Your task to perform on an android device: Show me popular games on the Play Store Image 0: 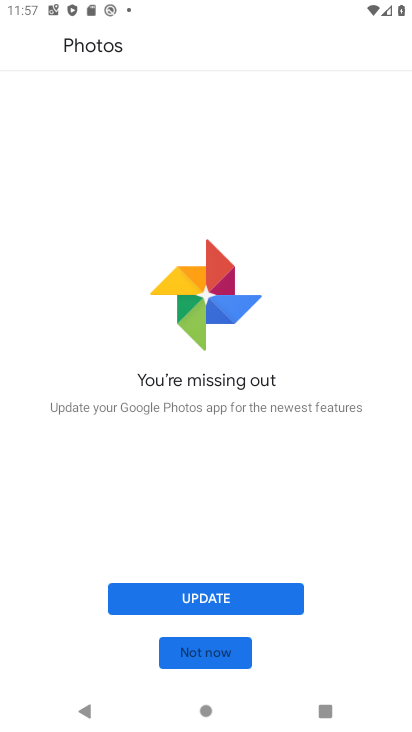
Step 0: press home button
Your task to perform on an android device: Show me popular games on the Play Store Image 1: 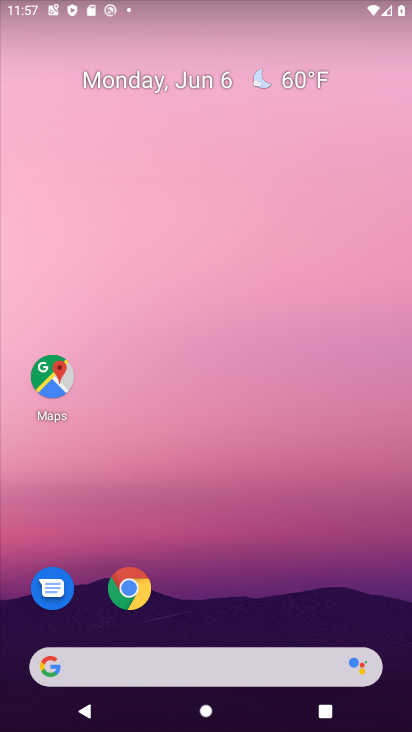
Step 1: drag from (251, 604) to (264, 161)
Your task to perform on an android device: Show me popular games on the Play Store Image 2: 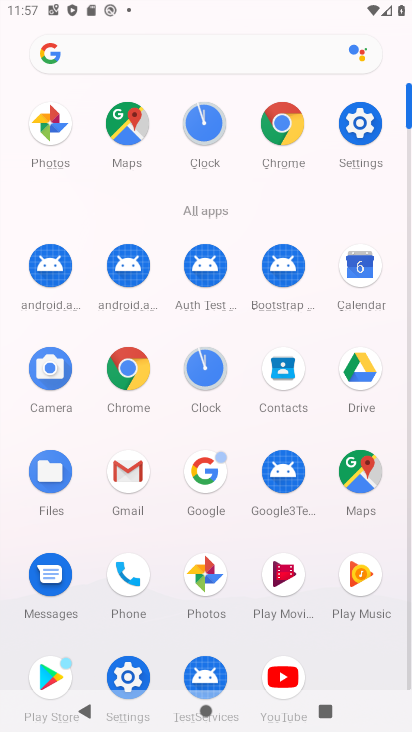
Step 2: click (34, 676)
Your task to perform on an android device: Show me popular games on the Play Store Image 3: 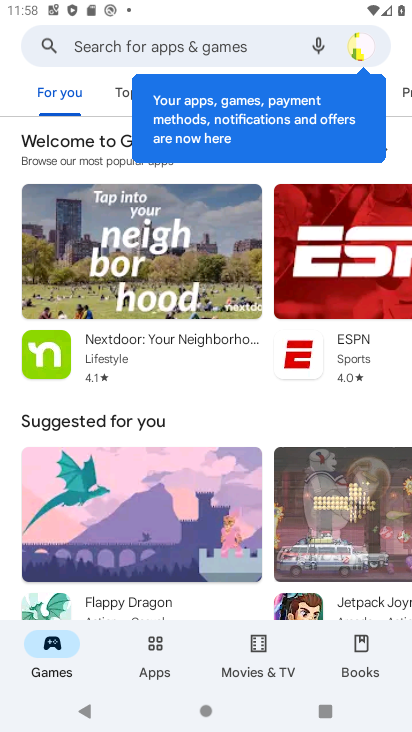
Step 3: task complete